Your task to perform on an android device: turn on airplane mode Image 0: 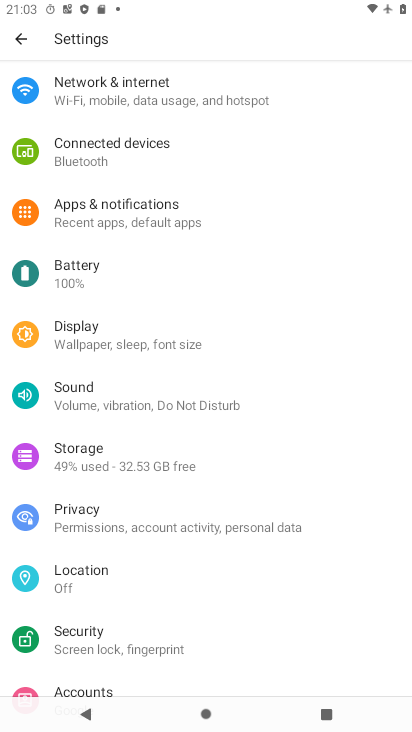
Step 0: drag from (174, 101) to (171, 575)
Your task to perform on an android device: turn on airplane mode Image 1: 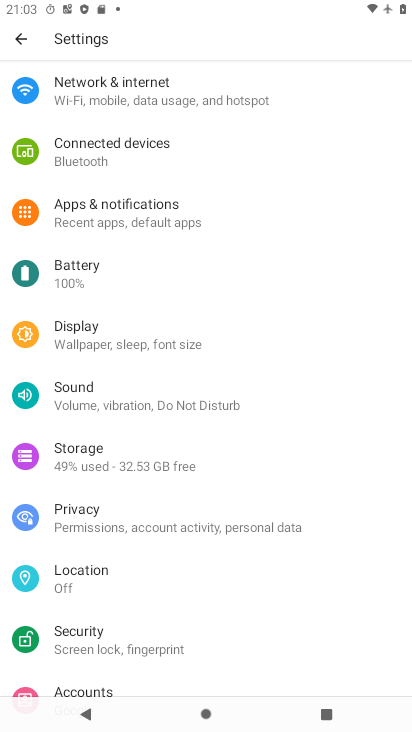
Step 1: drag from (184, 181) to (212, 610)
Your task to perform on an android device: turn on airplane mode Image 2: 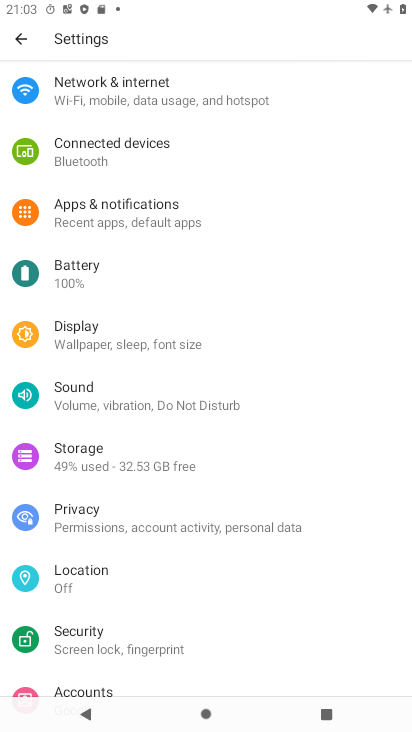
Step 2: click (157, 113)
Your task to perform on an android device: turn on airplane mode Image 3: 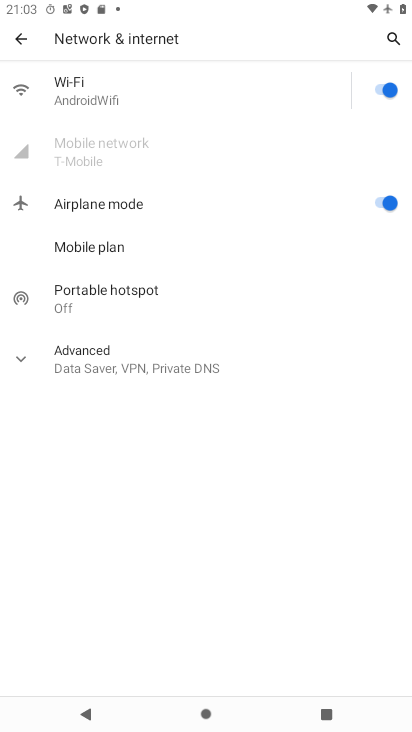
Step 3: click (380, 203)
Your task to perform on an android device: turn on airplane mode Image 4: 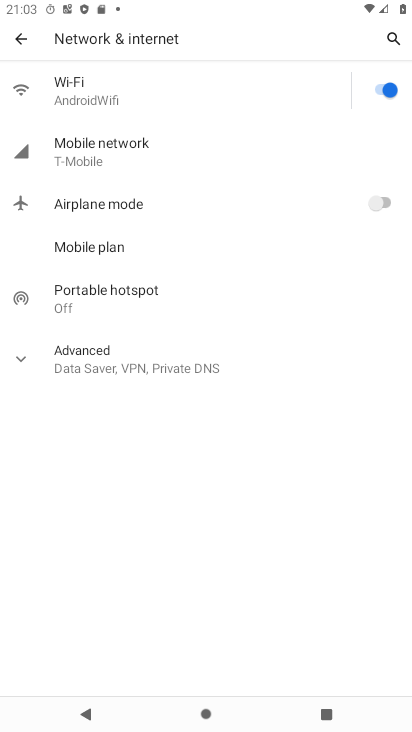
Step 4: click (382, 203)
Your task to perform on an android device: turn on airplane mode Image 5: 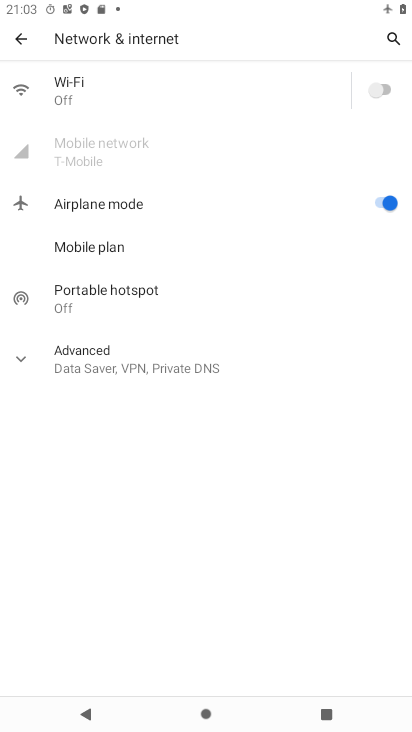
Step 5: task complete